Your task to perform on an android device: star an email in the gmail app Image 0: 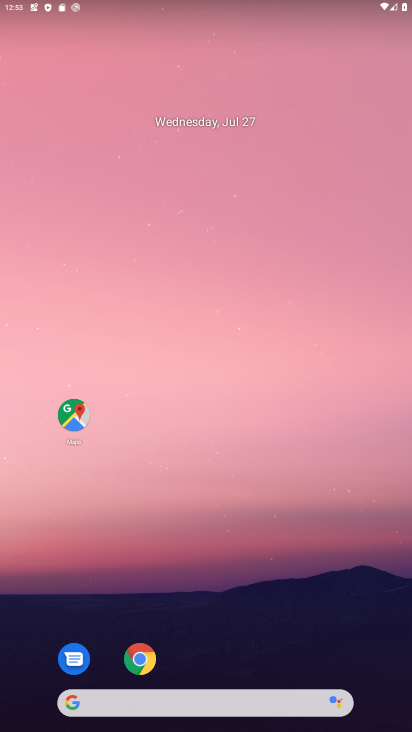
Step 0: drag from (194, 621) to (224, 201)
Your task to perform on an android device: star an email in the gmail app Image 1: 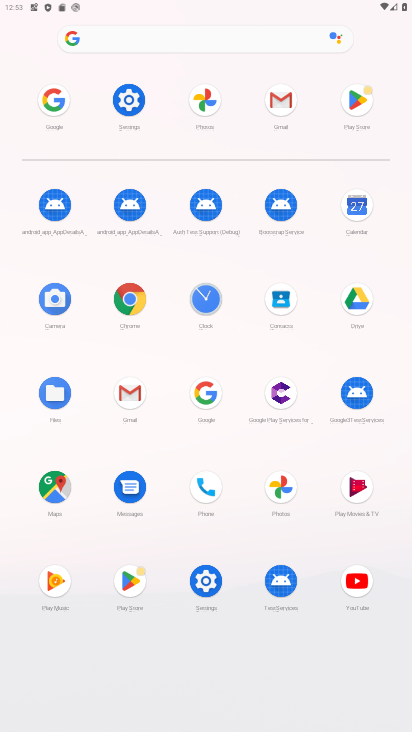
Step 1: click (269, 106)
Your task to perform on an android device: star an email in the gmail app Image 2: 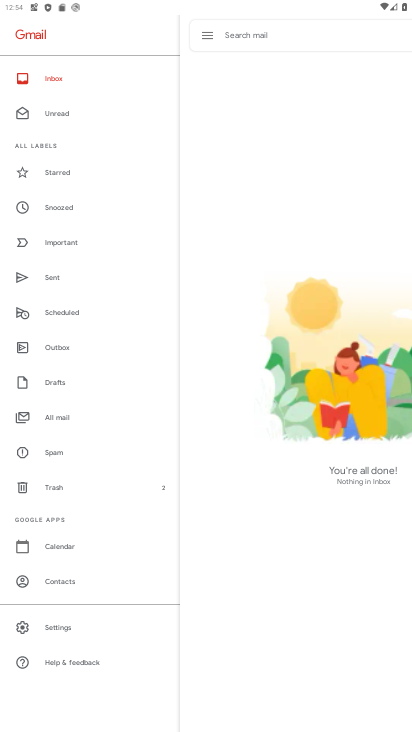
Step 2: click (46, 172)
Your task to perform on an android device: star an email in the gmail app Image 3: 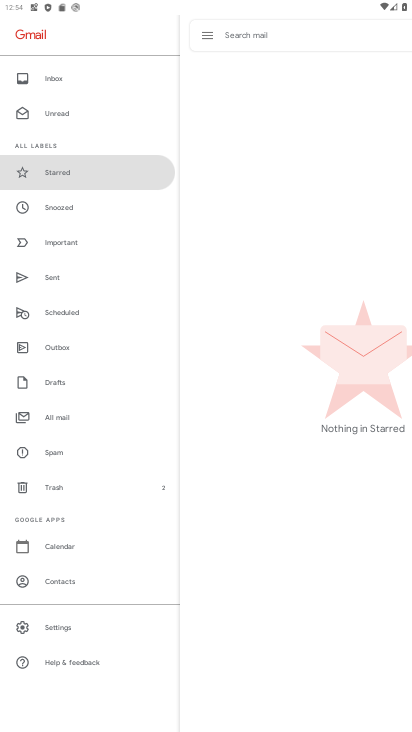
Step 3: task complete